Your task to perform on an android device: stop showing notifications on the lock screen Image 0: 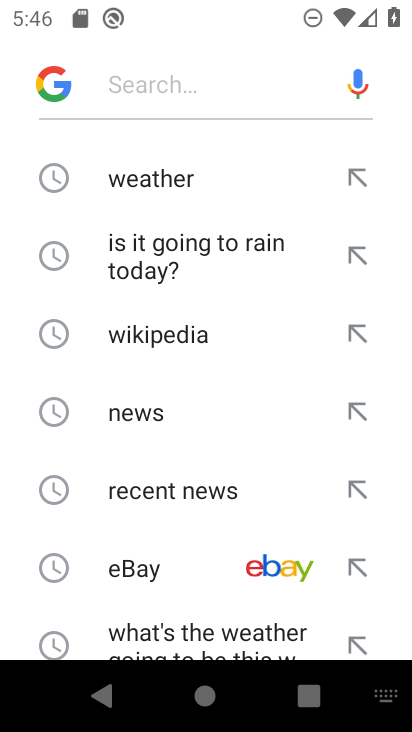
Step 0: press home button
Your task to perform on an android device: stop showing notifications on the lock screen Image 1: 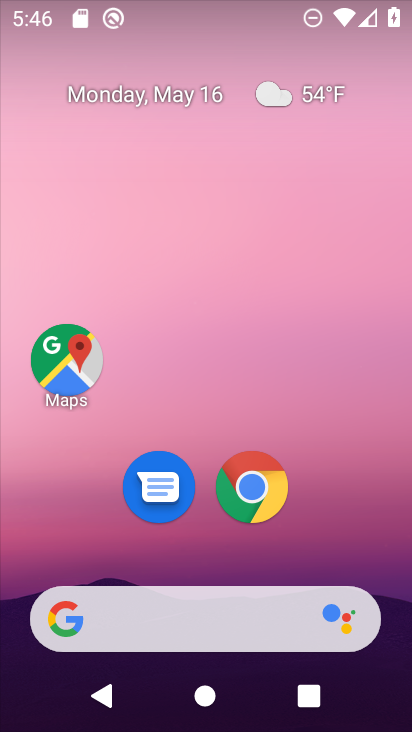
Step 1: drag from (205, 585) to (205, 327)
Your task to perform on an android device: stop showing notifications on the lock screen Image 2: 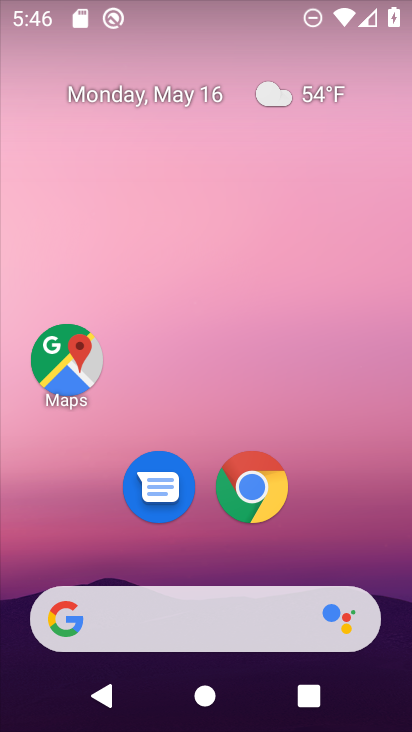
Step 2: drag from (219, 593) to (201, 353)
Your task to perform on an android device: stop showing notifications on the lock screen Image 3: 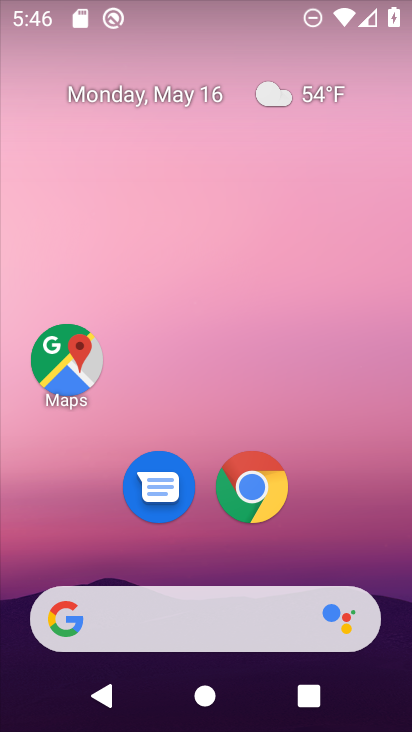
Step 3: drag from (189, 583) to (182, 204)
Your task to perform on an android device: stop showing notifications on the lock screen Image 4: 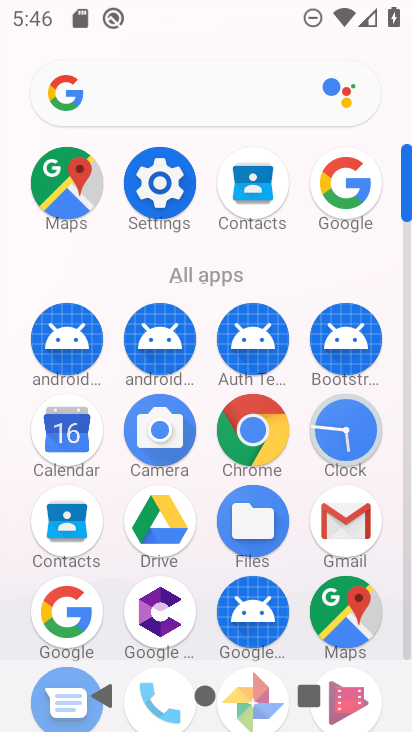
Step 4: click (152, 190)
Your task to perform on an android device: stop showing notifications on the lock screen Image 5: 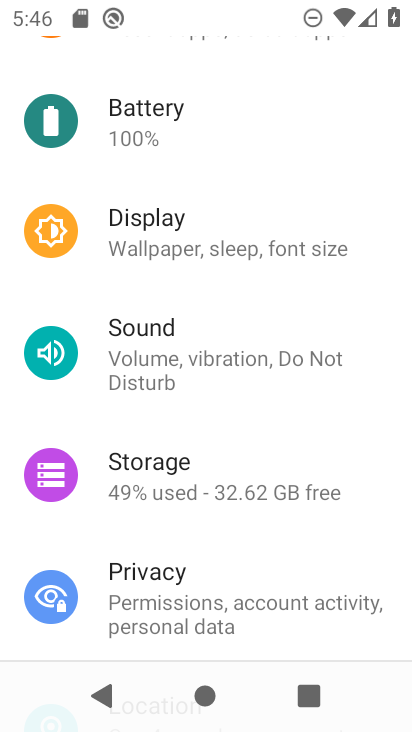
Step 5: click (161, 590)
Your task to perform on an android device: stop showing notifications on the lock screen Image 6: 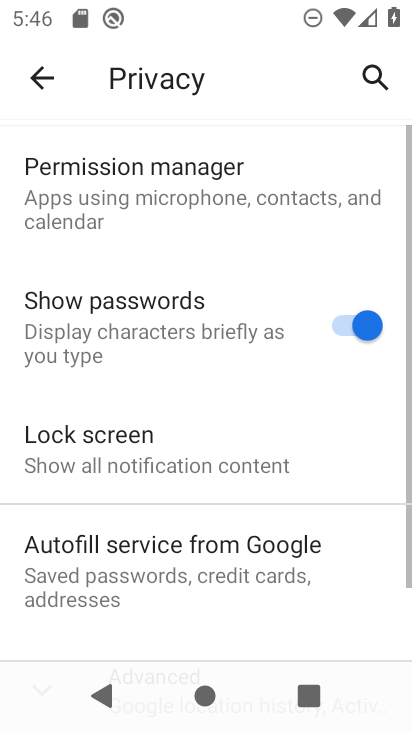
Step 6: drag from (175, 625) to (183, 278)
Your task to perform on an android device: stop showing notifications on the lock screen Image 7: 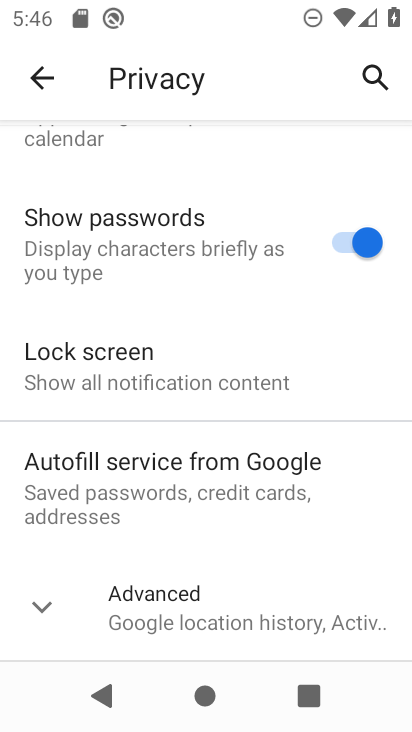
Step 7: click (200, 617)
Your task to perform on an android device: stop showing notifications on the lock screen Image 8: 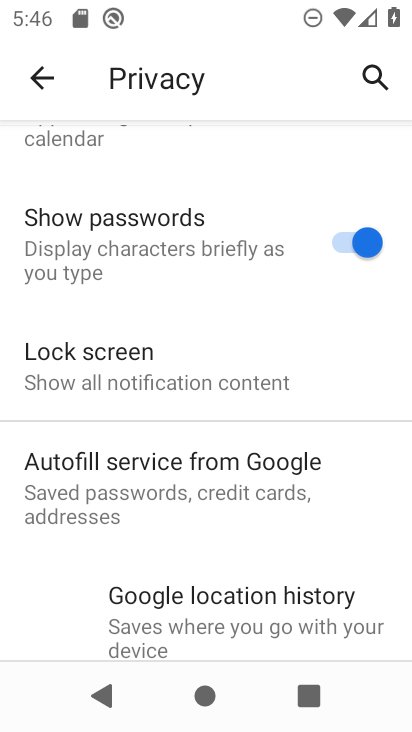
Step 8: task complete